Your task to perform on an android device: When is my next appointment? Image 0: 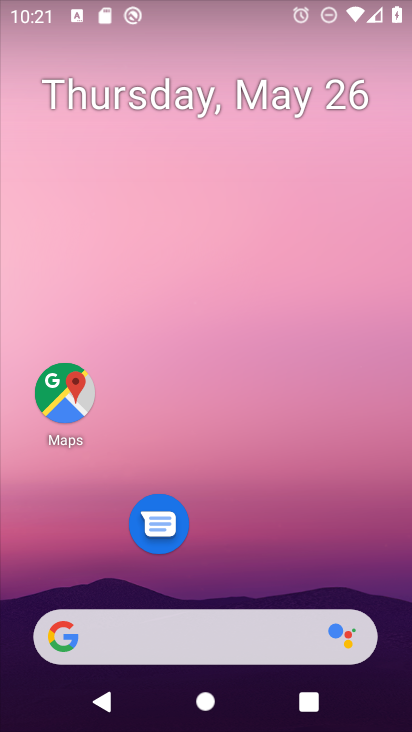
Step 0: drag from (287, 561) to (283, 2)
Your task to perform on an android device: When is my next appointment? Image 1: 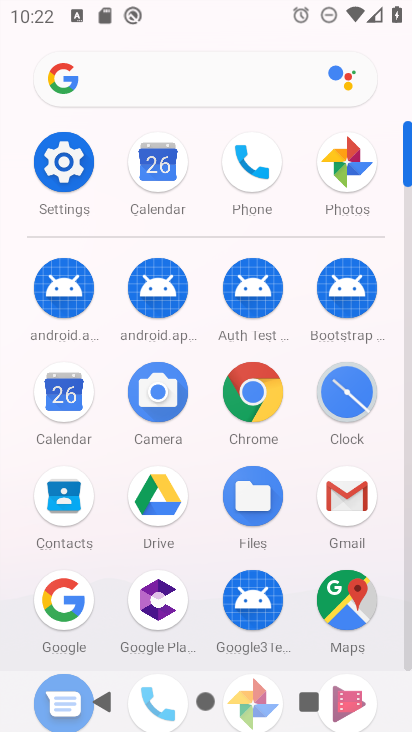
Step 1: click (162, 160)
Your task to perform on an android device: When is my next appointment? Image 2: 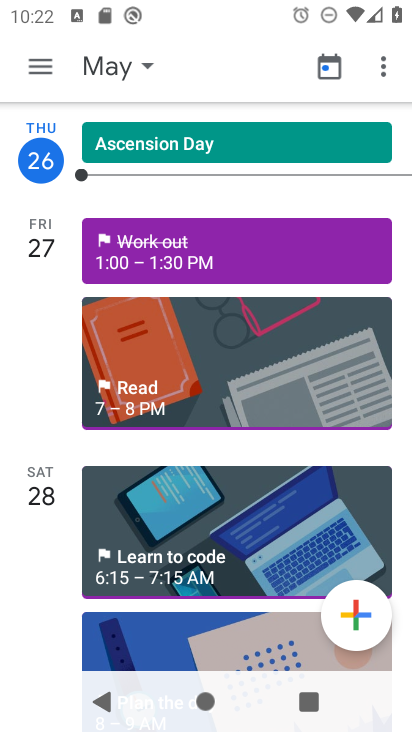
Step 2: task complete